Your task to perform on an android device: Search for vegetarian restaurants on Maps Image 0: 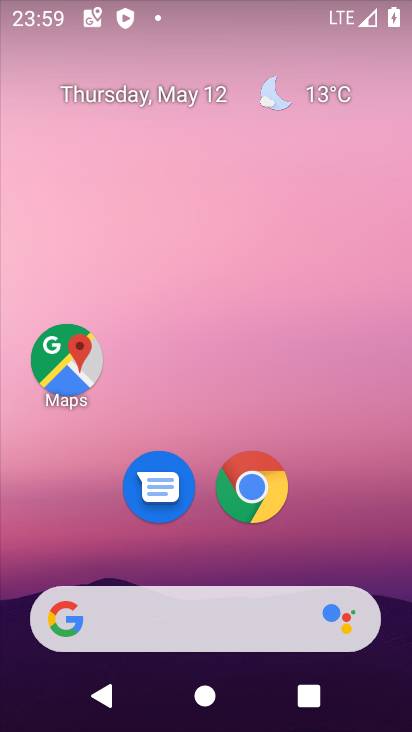
Step 0: click (81, 377)
Your task to perform on an android device: Search for vegetarian restaurants on Maps Image 1: 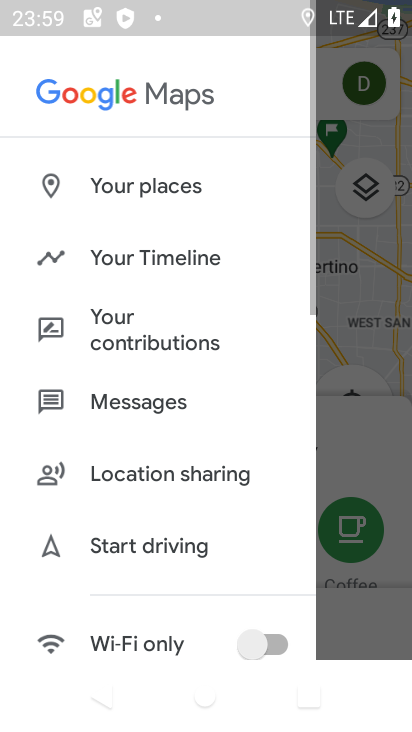
Step 1: click (395, 153)
Your task to perform on an android device: Search for vegetarian restaurants on Maps Image 2: 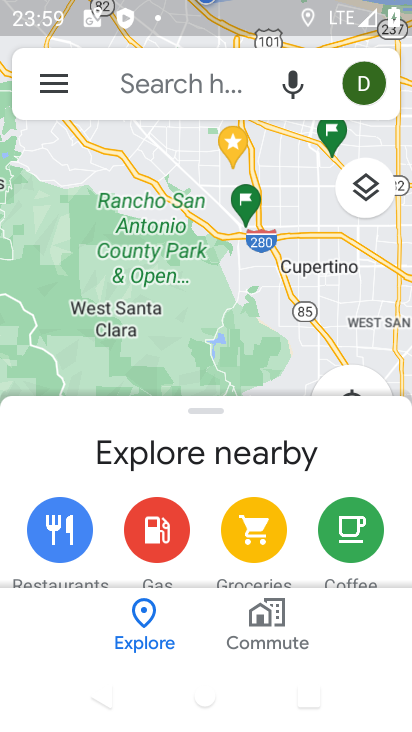
Step 2: click (230, 83)
Your task to perform on an android device: Search for vegetarian restaurants on Maps Image 3: 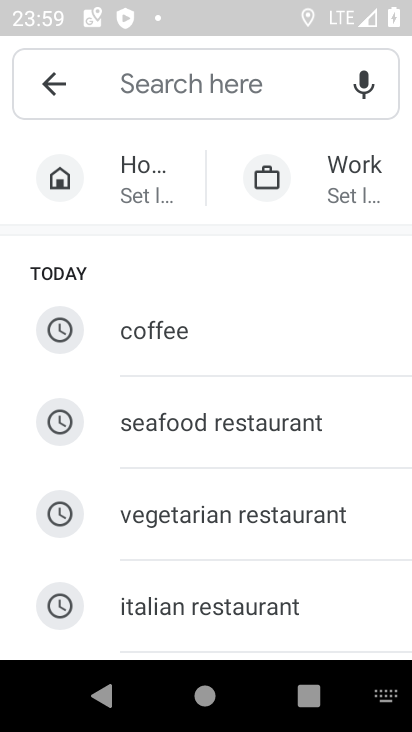
Step 3: click (221, 524)
Your task to perform on an android device: Search for vegetarian restaurants on Maps Image 4: 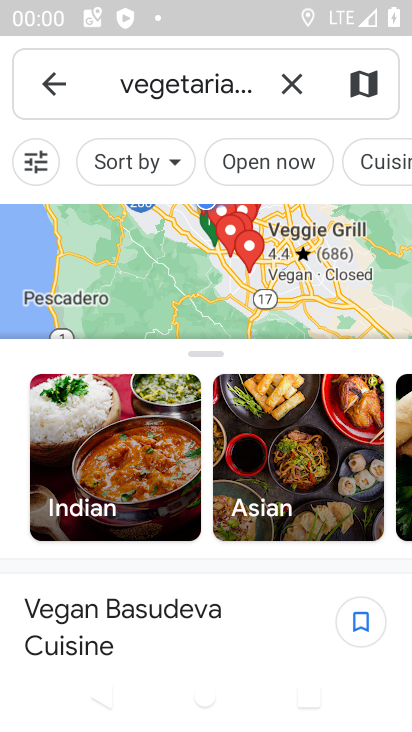
Step 4: task complete